Your task to perform on an android device: see creations saved in the google photos Image 0: 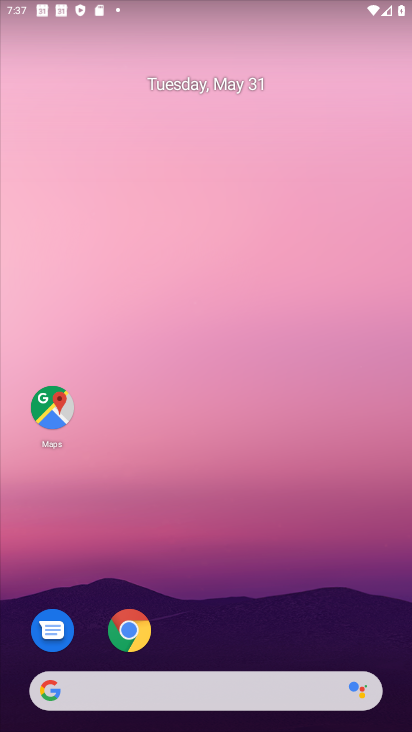
Step 0: drag from (274, 617) to (197, 243)
Your task to perform on an android device: see creations saved in the google photos Image 1: 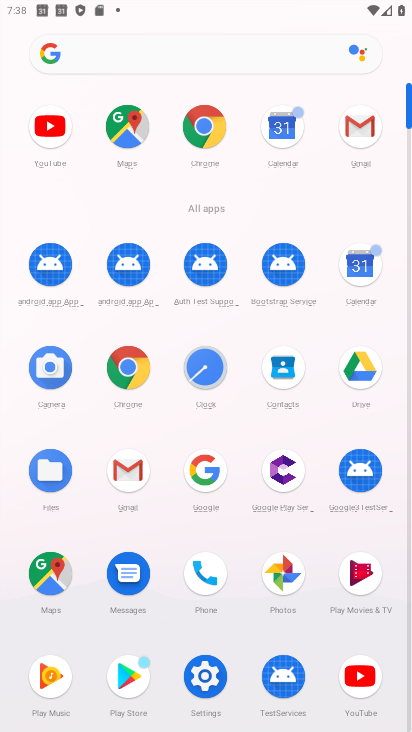
Step 1: click (286, 568)
Your task to perform on an android device: see creations saved in the google photos Image 2: 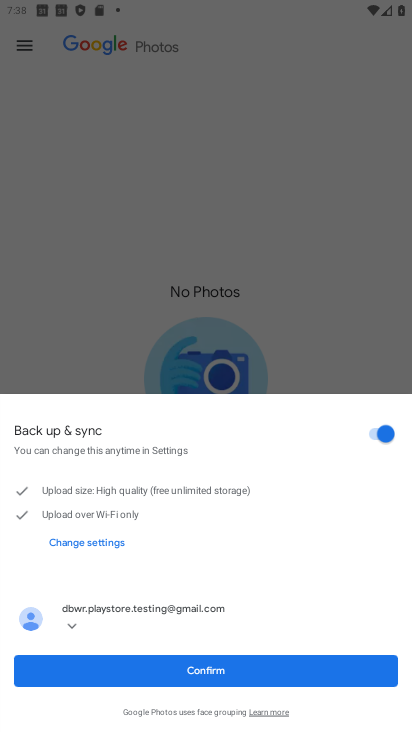
Step 2: click (220, 677)
Your task to perform on an android device: see creations saved in the google photos Image 3: 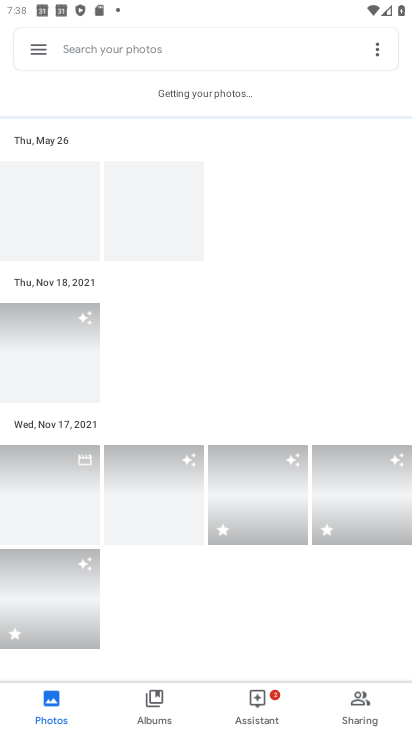
Step 3: click (146, 722)
Your task to perform on an android device: see creations saved in the google photos Image 4: 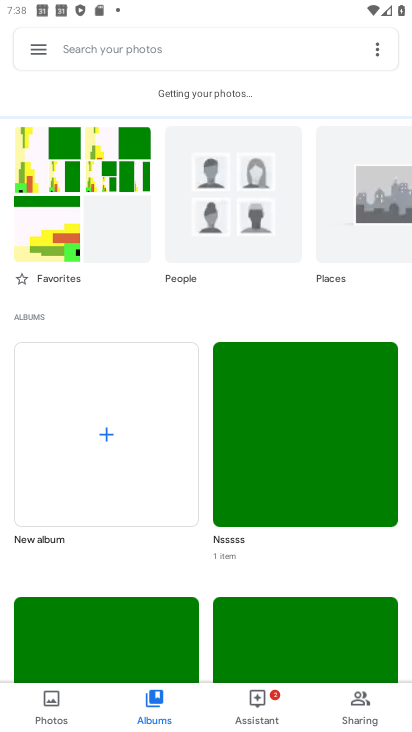
Step 4: click (38, 172)
Your task to perform on an android device: see creations saved in the google photos Image 5: 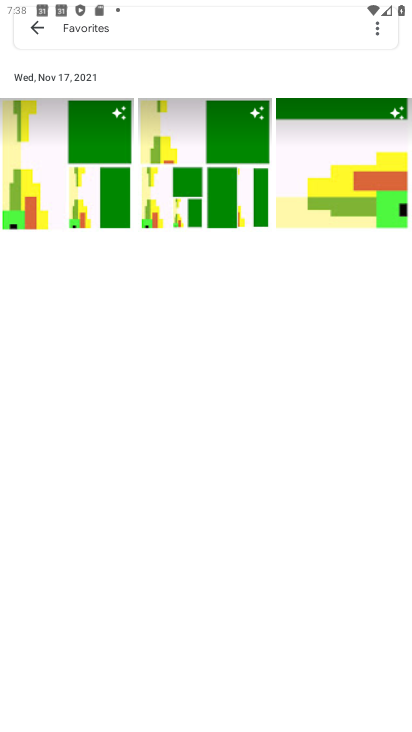
Step 5: task complete